Your task to perform on an android device: turn on airplane mode Image 0: 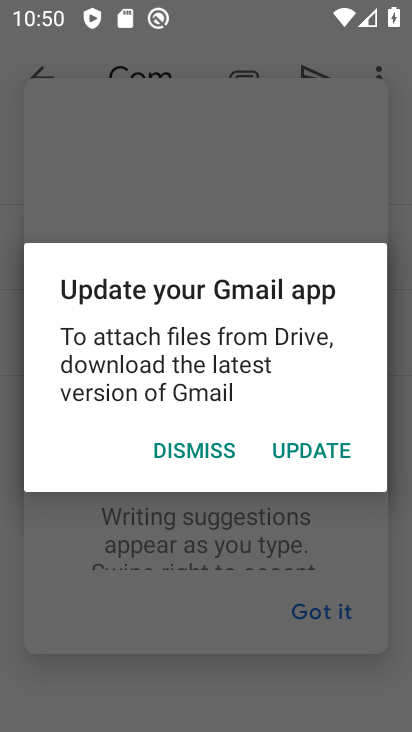
Step 0: press home button
Your task to perform on an android device: turn on airplane mode Image 1: 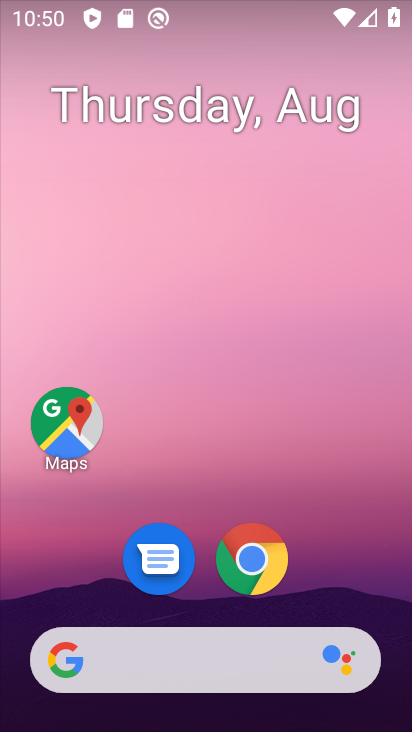
Step 1: drag from (371, 616) to (310, 229)
Your task to perform on an android device: turn on airplane mode Image 2: 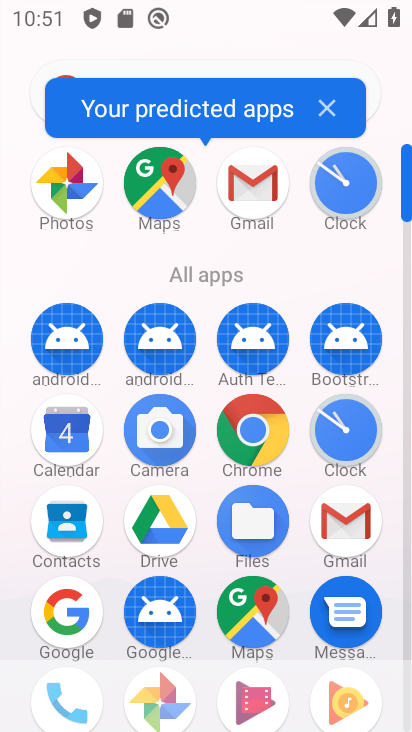
Step 2: drag from (325, 13) to (290, 556)
Your task to perform on an android device: turn on airplane mode Image 3: 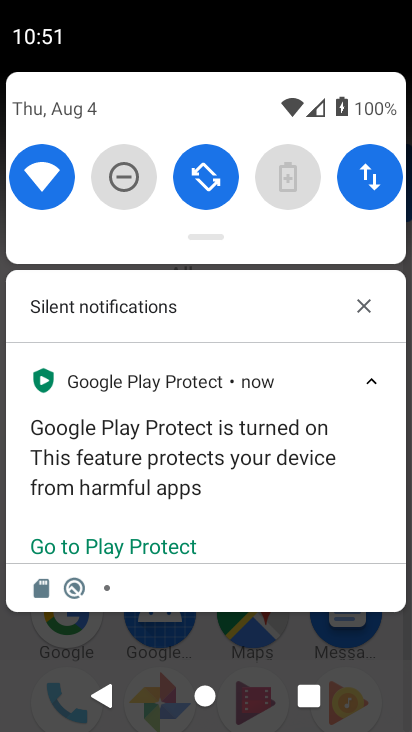
Step 3: drag from (221, 239) to (289, 634)
Your task to perform on an android device: turn on airplane mode Image 4: 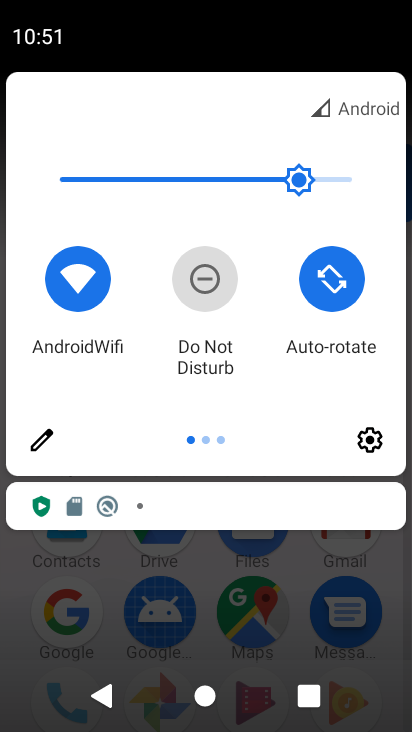
Step 4: drag from (375, 331) to (80, 338)
Your task to perform on an android device: turn on airplane mode Image 5: 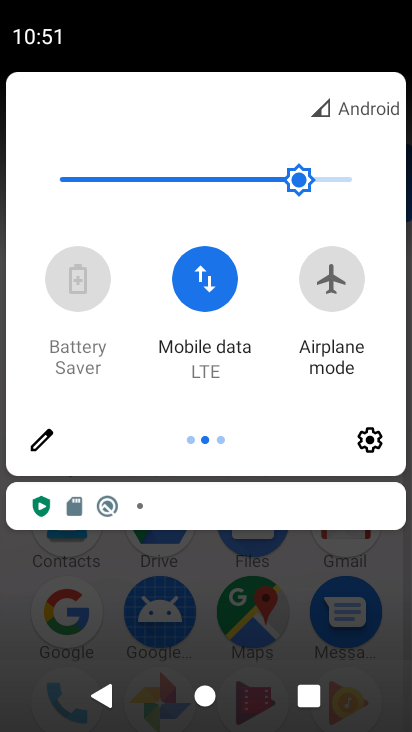
Step 5: click (337, 290)
Your task to perform on an android device: turn on airplane mode Image 6: 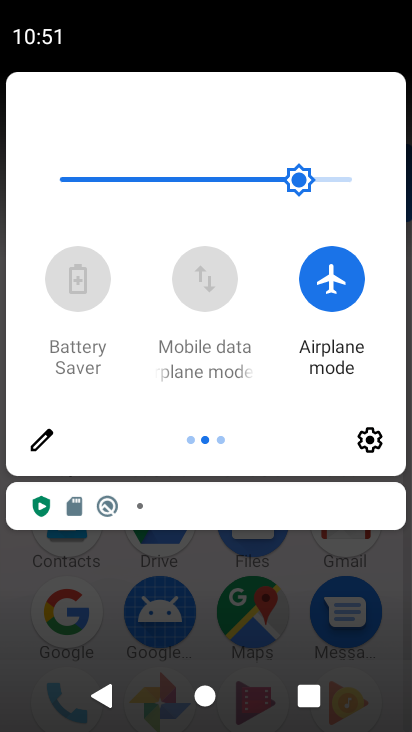
Step 6: task complete